Your task to perform on an android device: Go to privacy settings Image 0: 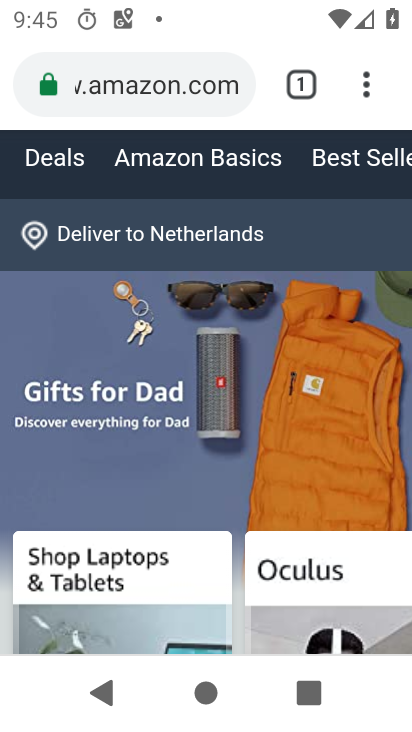
Step 0: drag from (227, 589) to (323, 103)
Your task to perform on an android device: Go to privacy settings Image 1: 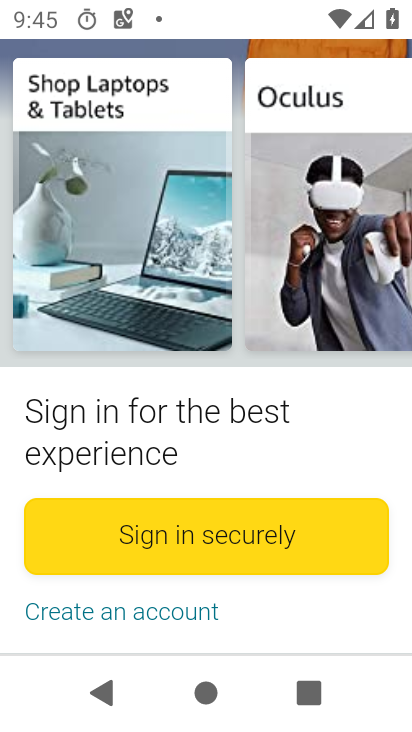
Step 1: drag from (299, 176) to (264, 703)
Your task to perform on an android device: Go to privacy settings Image 2: 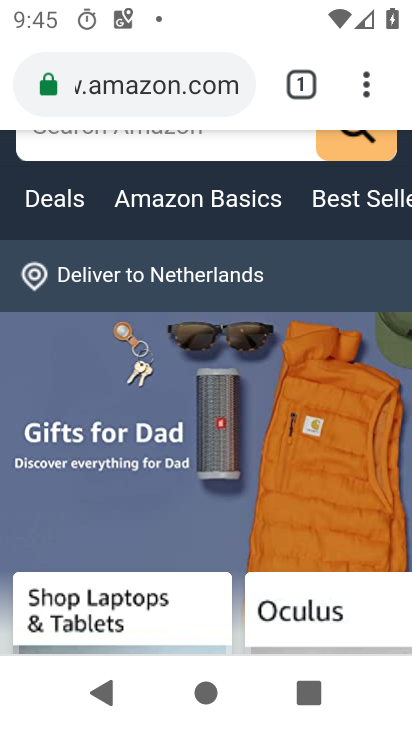
Step 2: click (370, 83)
Your task to perform on an android device: Go to privacy settings Image 3: 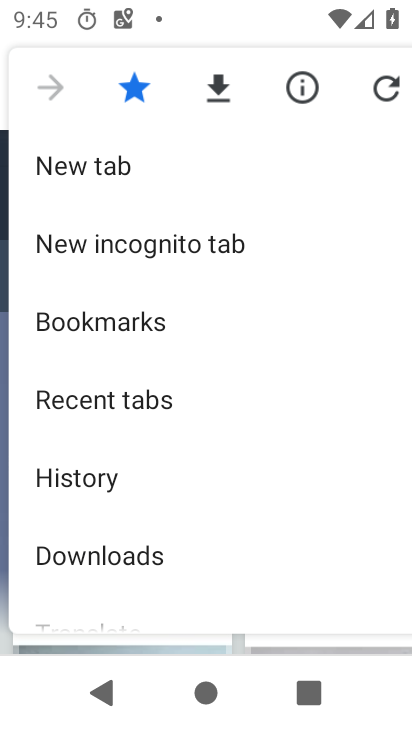
Step 3: drag from (147, 557) to (309, 49)
Your task to perform on an android device: Go to privacy settings Image 4: 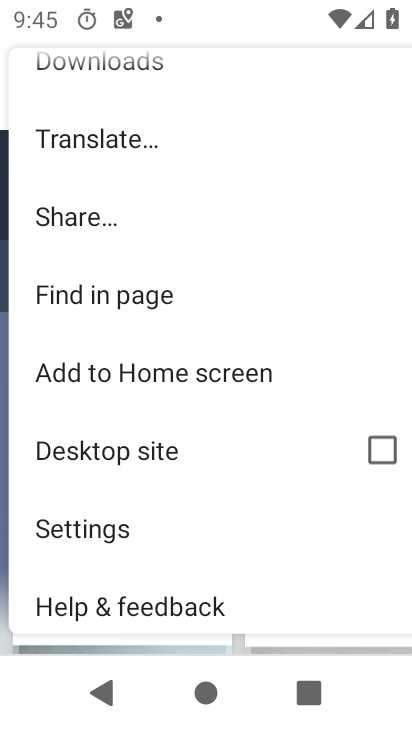
Step 4: click (125, 549)
Your task to perform on an android device: Go to privacy settings Image 5: 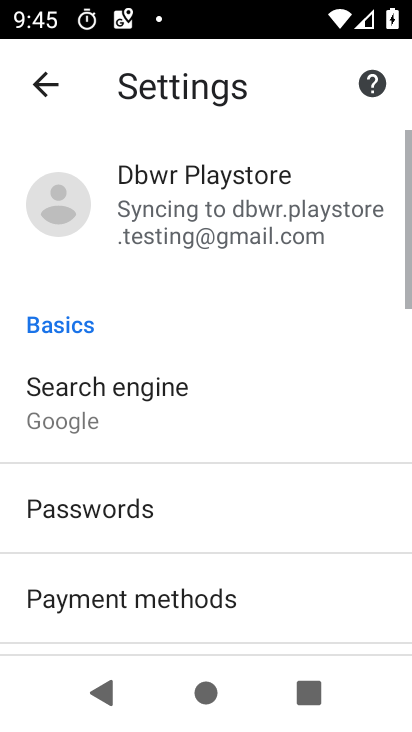
Step 5: drag from (161, 502) to (253, 148)
Your task to perform on an android device: Go to privacy settings Image 6: 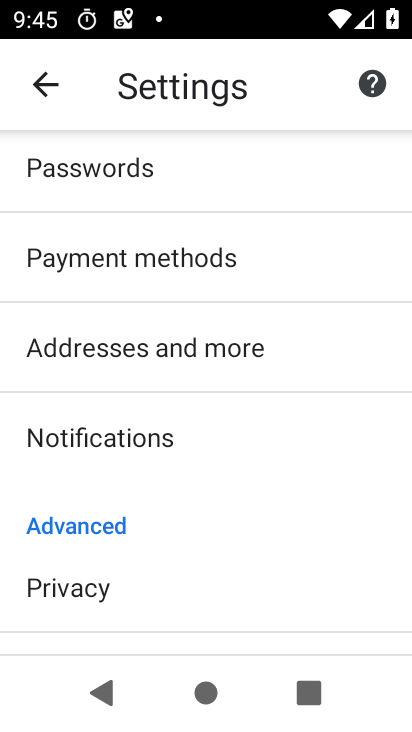
Step 6: drag from (196, 614) to (304, 184)
Your task to perform on an android device: Go to privacy settings Image 7: 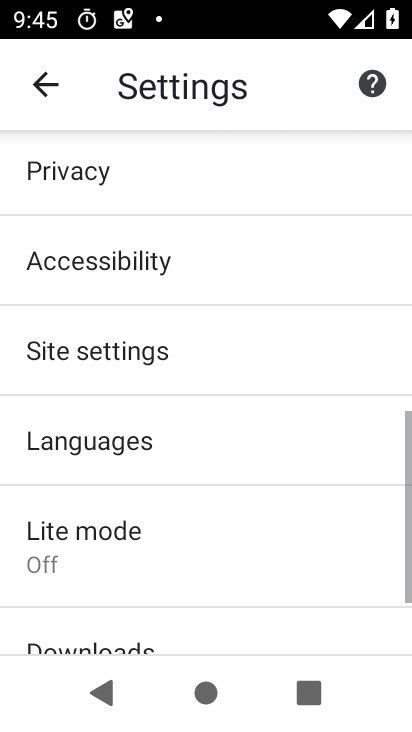
Step 7: click (109, 181)
Your task to perform on an android device: Go to privacy settings Image 8: 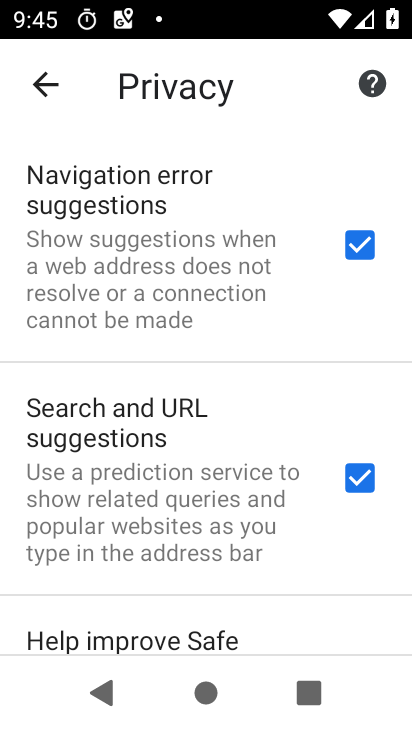
Step 8: task complete